Your task to perform on an android device: find which apps use the phone's location Image 0: 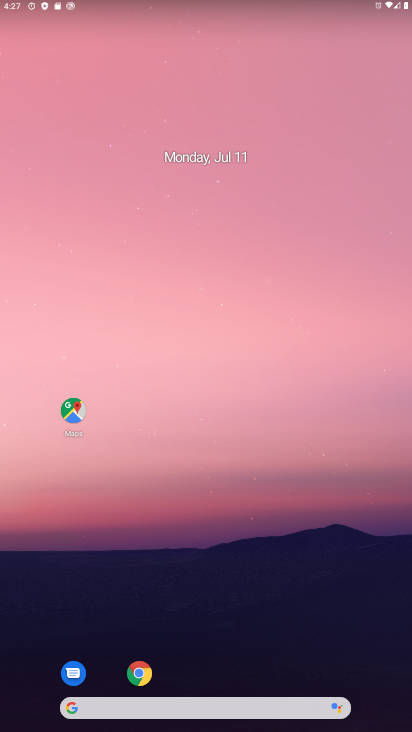
Step 0: drag from (208, 658) to (291, 78)
Your task to perform on an android device: find which apps use the phone's location Image 1: 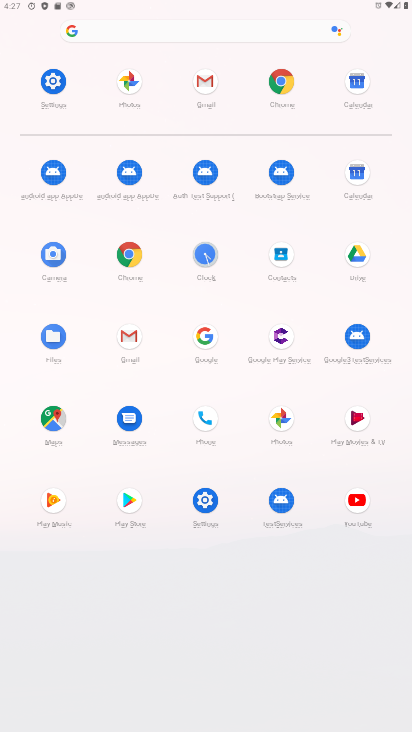
Step 1: click (210, 418)
Your task to perform on an android device: find which apps use the phone's location Image 2: 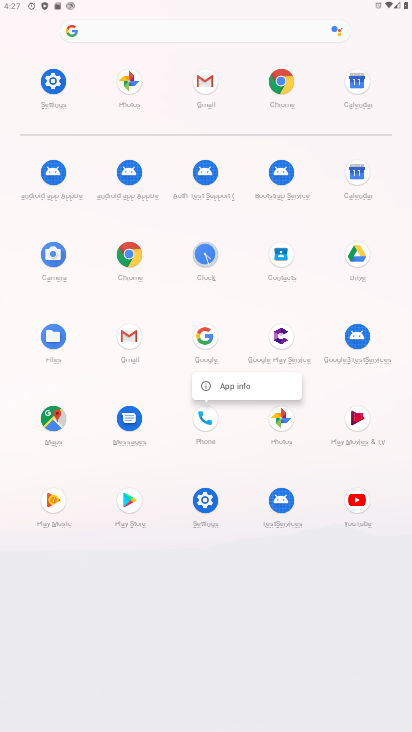
Step 2: click (233, 389)
Your task to perform on an android device: find which apps use the phone's location Image 3: 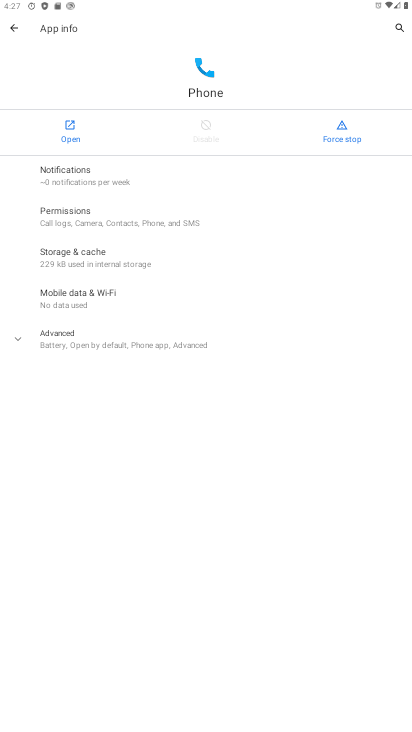
Step 3: click (100, 336)
Your task to perform on an android device: find which apps use the phone's location Image 4: 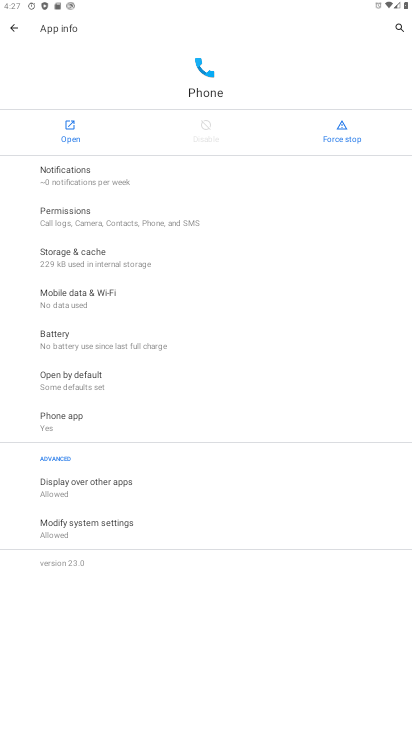
Step 4: click (64, 213)
Your task to perform on an android device: find which apps use the phone's location Image 5: 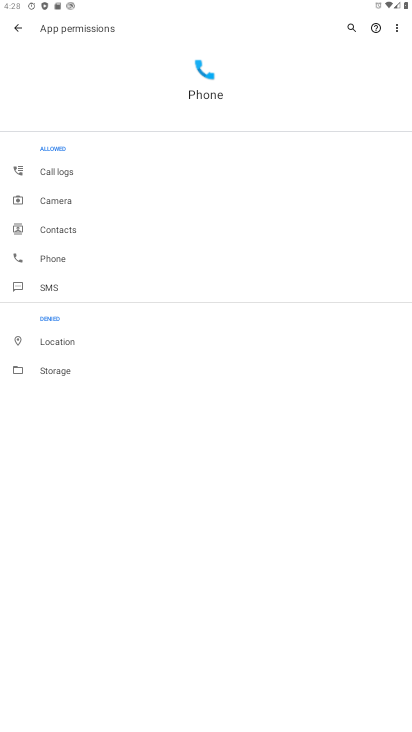
Step 5: click (55, 336)
Your task to perform on an android device: find which apps use the phone's location Image 6: 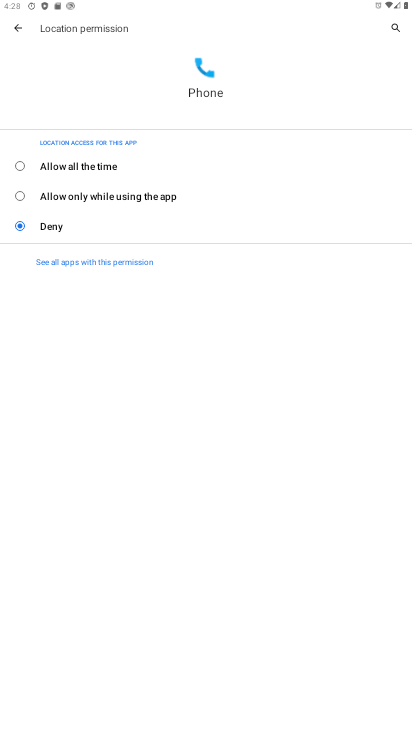
Step 6: task complete